Your task to perform on an android device: turn notification dots on Image 0: 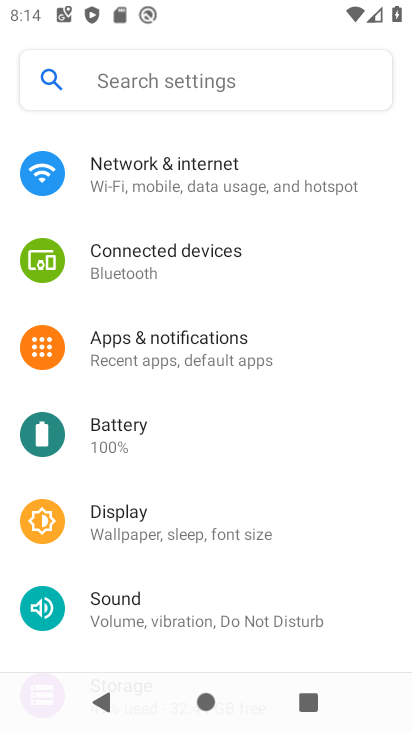
Step 0: press home button
Your task to perform on an android device: turn notification dots on Image 1: 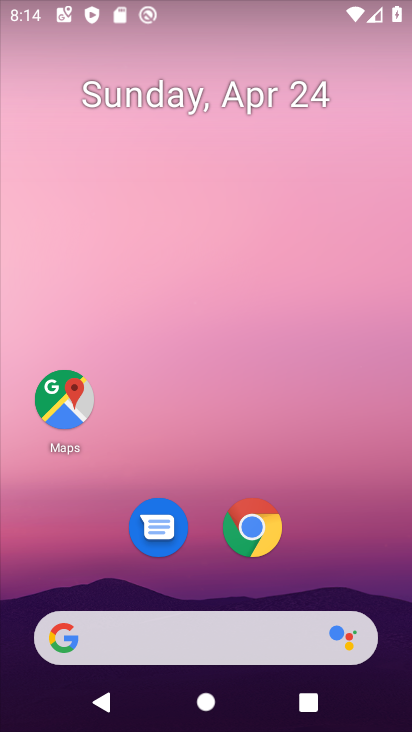
Step 1: drag from (394, 635) to (290, 66)
Your task to perform on an android device: turn notification dots on Image 2: 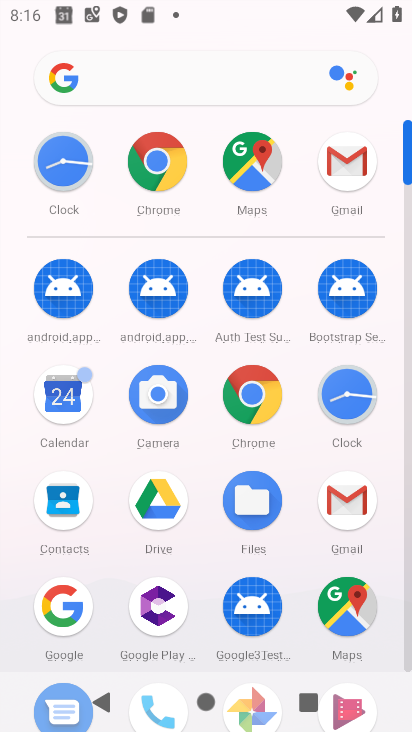
Step 2: click (409, 664)
Your task to perform on an android device: turn notification dots on Image 3: 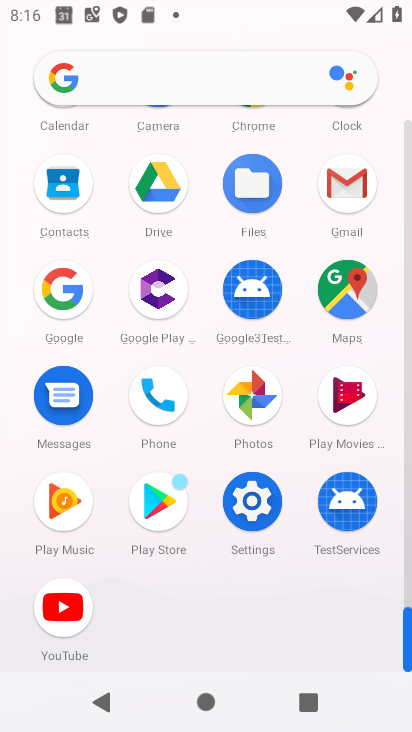
Step 3: click (245, 504)
Your task to perform on an android device: turn notification dots on Image 4: 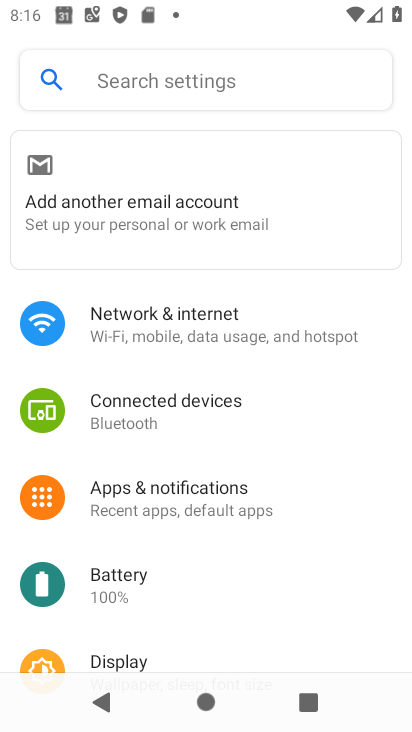
Step 4: click (202, 481)
Your task to perform on an android device: turn notification dots on Image 5: 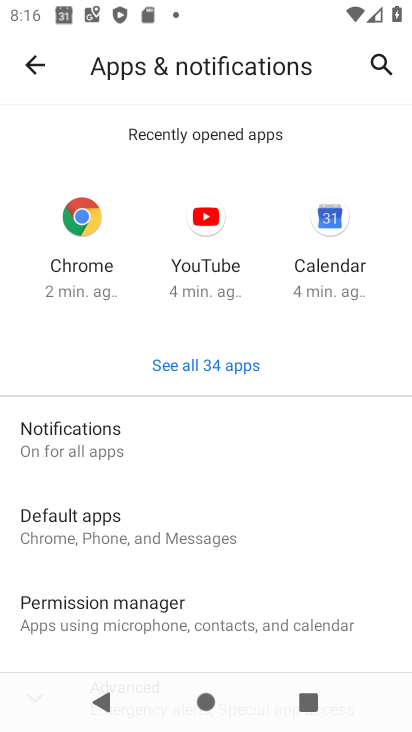
Step 5: click (189, 445)
Your task to perform on an android device: turn notification dots on Image 6: 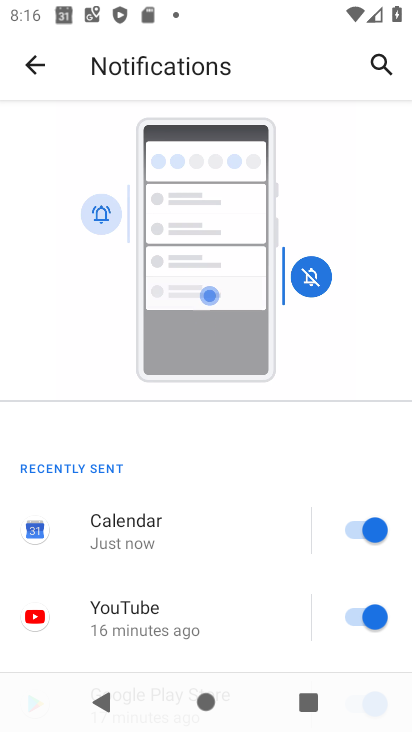
Step 6: drag from (190, 574) to (158, 24)
Your task to perform on an android device: turn notification dots on Image 7: 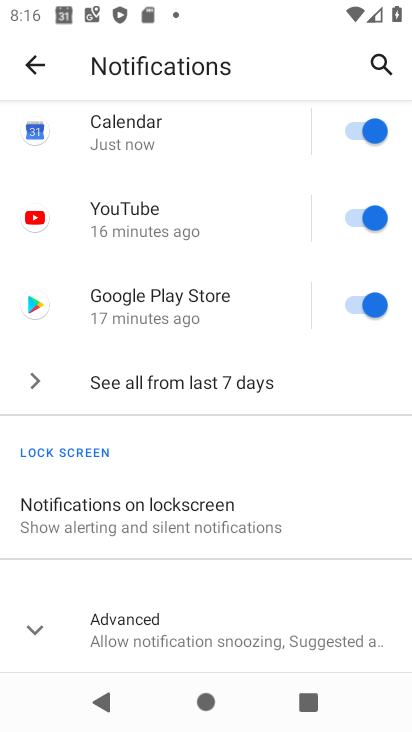
Step 7: click (159, 626)
Your task to perform on an android device: turn notification dots on Image 8: 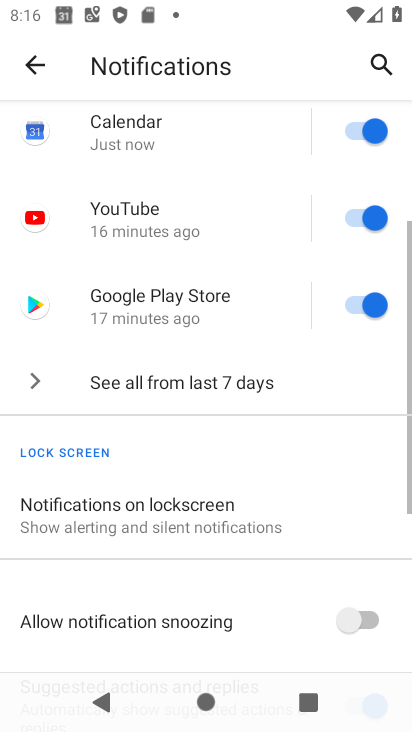
Step 8: task complete